Your task to perform on an android device: make emails show in primary in the gmail app Image 0: 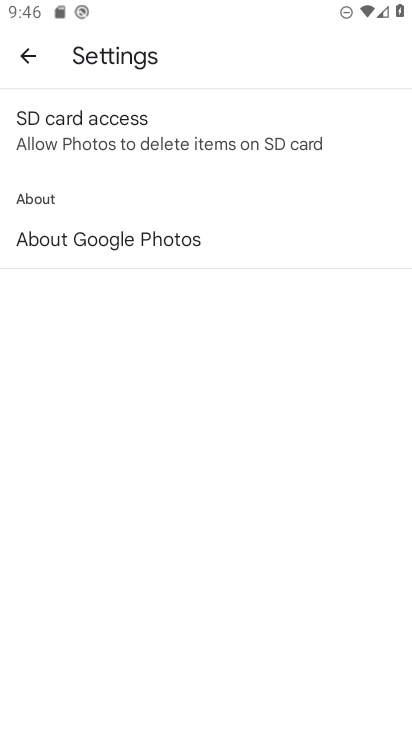
Step 0: press home button
Your task to perform on an android device: make emails show in primary in the gmail app Image 1: 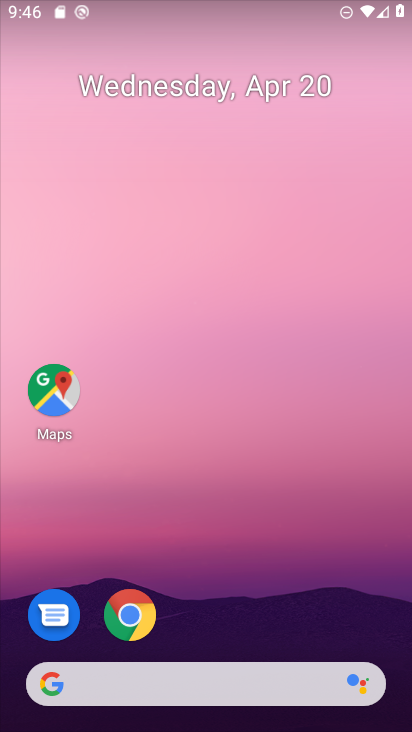
Step 1: drag from (205, 623) to (182, 43)
Your task to perform on an android device: make emails show in primary in the gmail app Image 2: 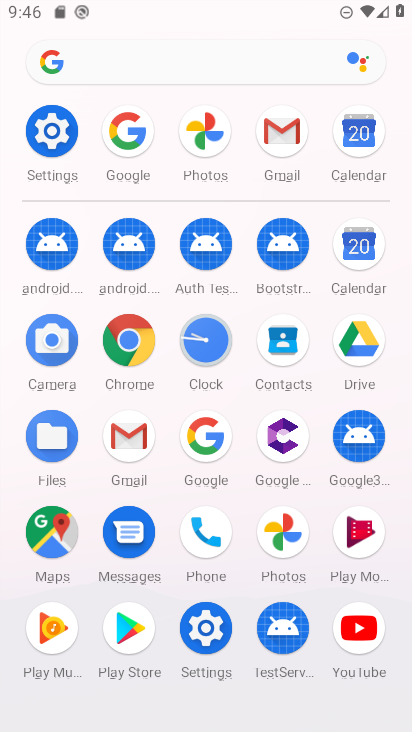
Step 2: click (284, 136)
Your task to perform on an android device: make emails show in primary in the gmail app Image 3: 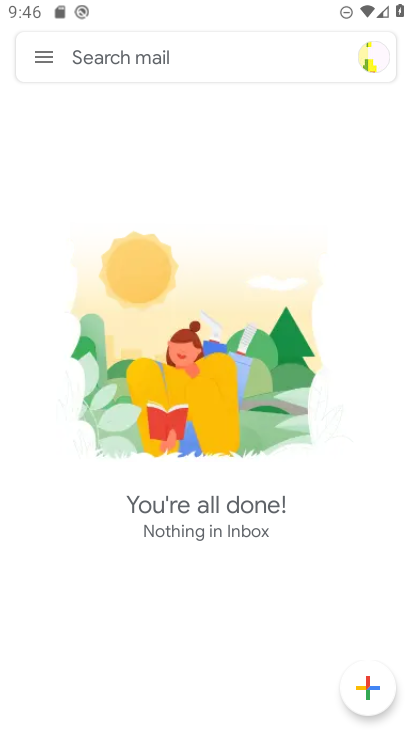
Step 3: click (43, 58)
Your task to perform on an android device: make emails show in primary in the gmail app Image 4: 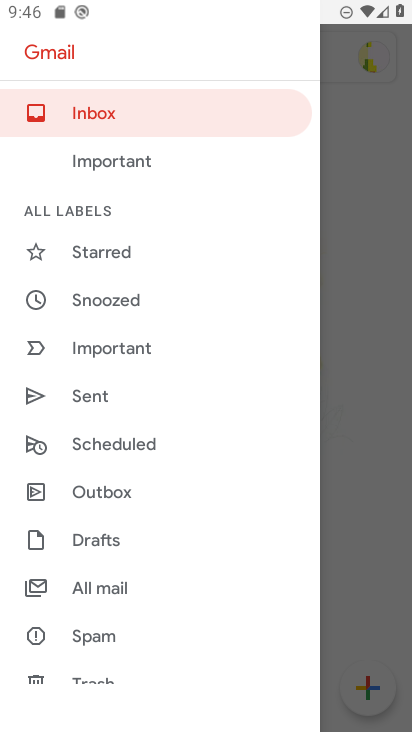
Step 4: drag from (131, 546) to (166, 447)
Your task to perform on an android device: make emails show in primary in the gmail app Image 5: 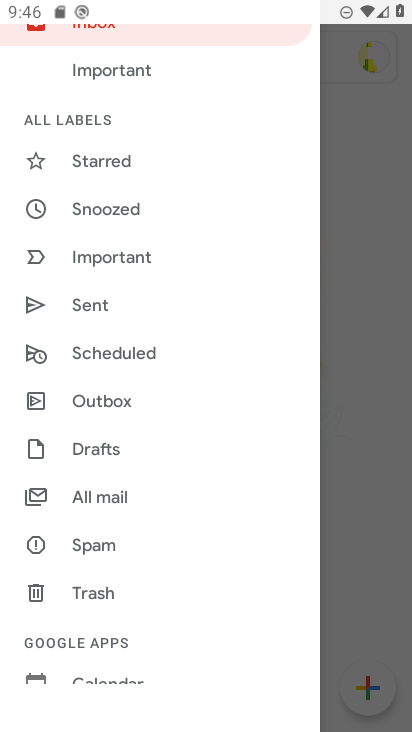
Step 5: drag from (126, 563) to (151, 487)
Your task to perform on an android device: make emails show in primary in the gmail app Image 6: 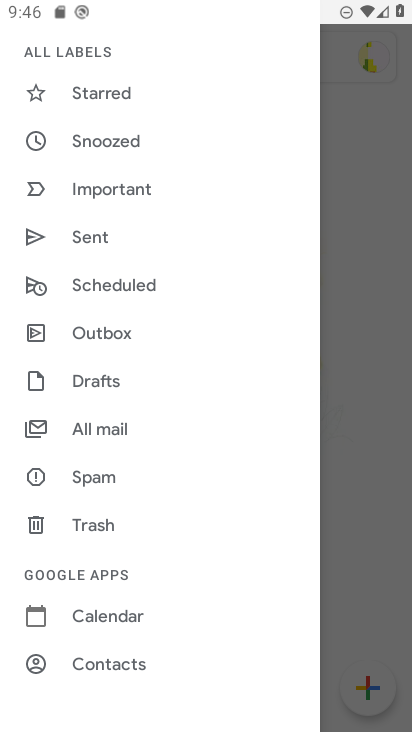
Step 6: drag from (149, 569) to (165, 507)
Your task to perform on an android device: make emails show in primary in the gmail app Image 7: 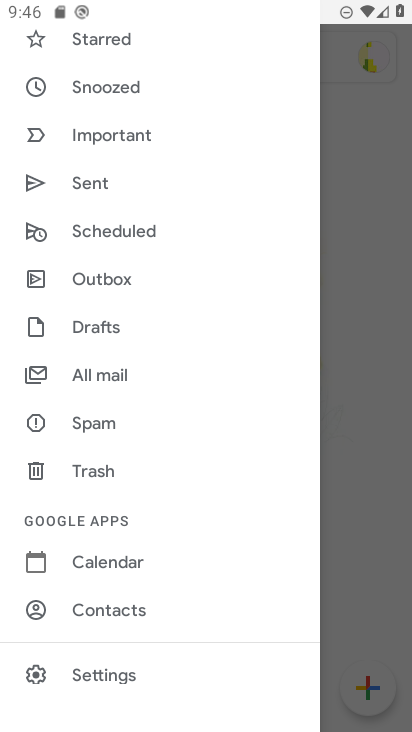
Step 7: click (121, 673)
Your task to perform on an android device: make emails show in primary in the gmail app Image 8: 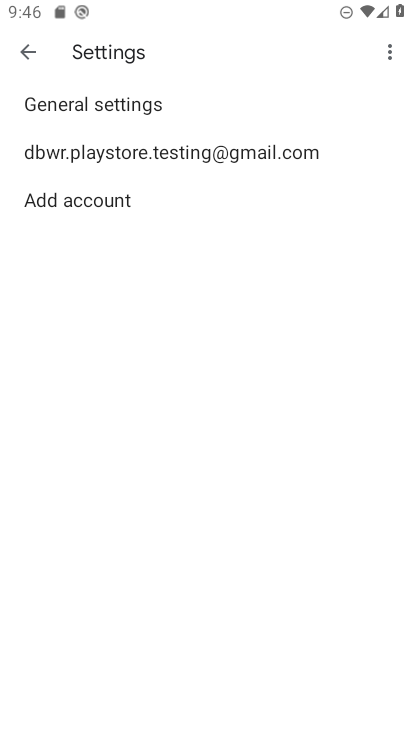
Step 8: click (230, 158)
Your task to perform on an android device: make emails show in primary in the gmail app Image 9: 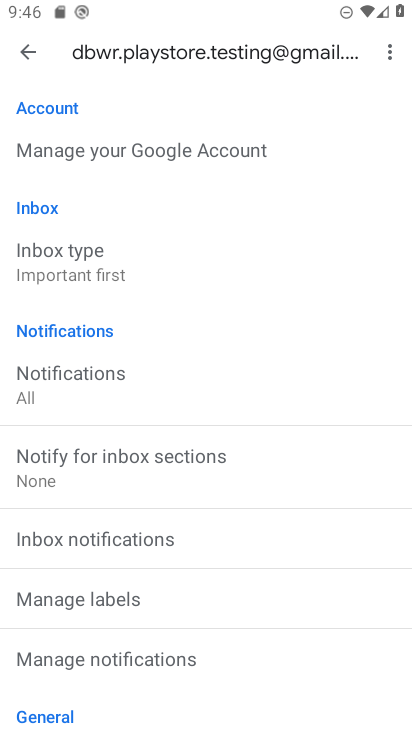
Step 9: click (72, 251)
Your task to perform on an android device: make emails show in primary in the gmail app Image 10: 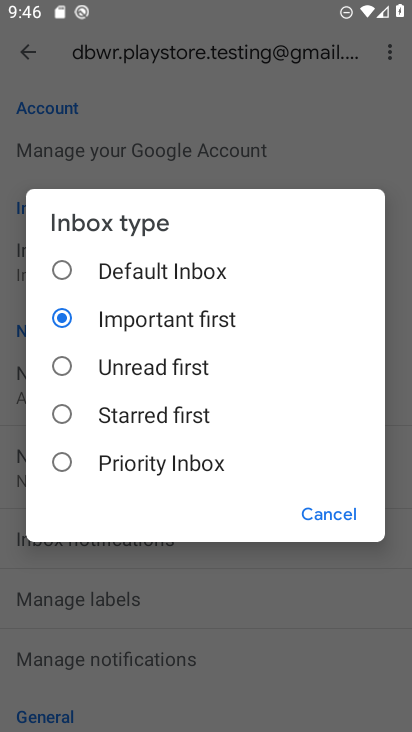
Step 10: click (64, 262)
Your task to perform on an android device: make emails show in primary in the gmail app Image 11: 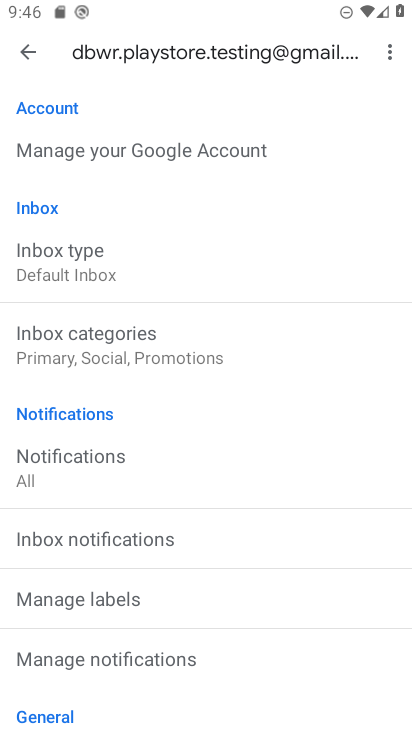
Step 11: click (107, 347)
Your task to perform on an android device: make emails show in primary in the gmail app Image 12: 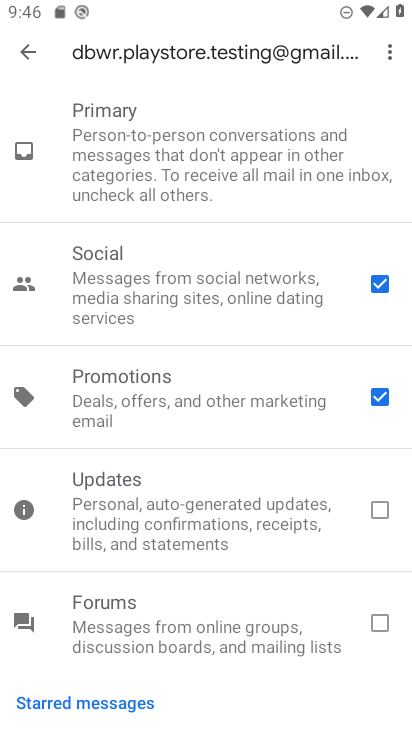
Step 12: click (381, 291)
Your task to perform on an android device: make emails show in primary in the gmail app Image 13: 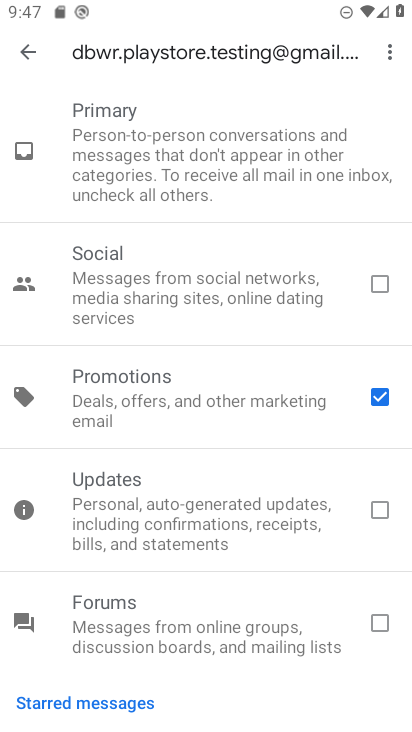
Step 13: click (382, 399)
Your task to perform on an android device: make emails show in primary in the gmail app Image 14: 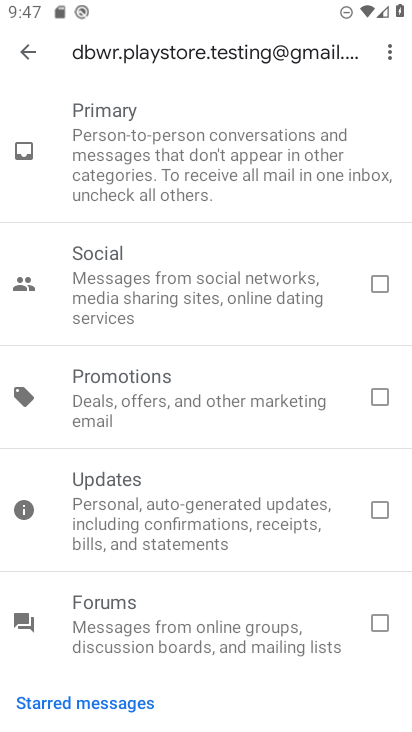
Step 14: task complete